Your task to perform on an android device: Go to CNN.com Image 0: 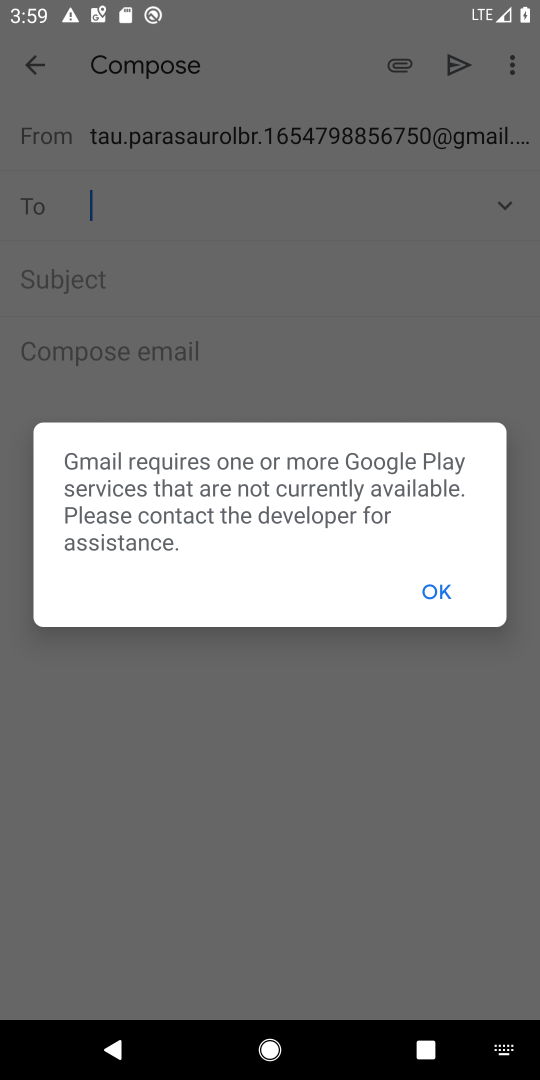
Step 0: press back button
Your task to perform on an android device: Go to CNN.com Image 1: 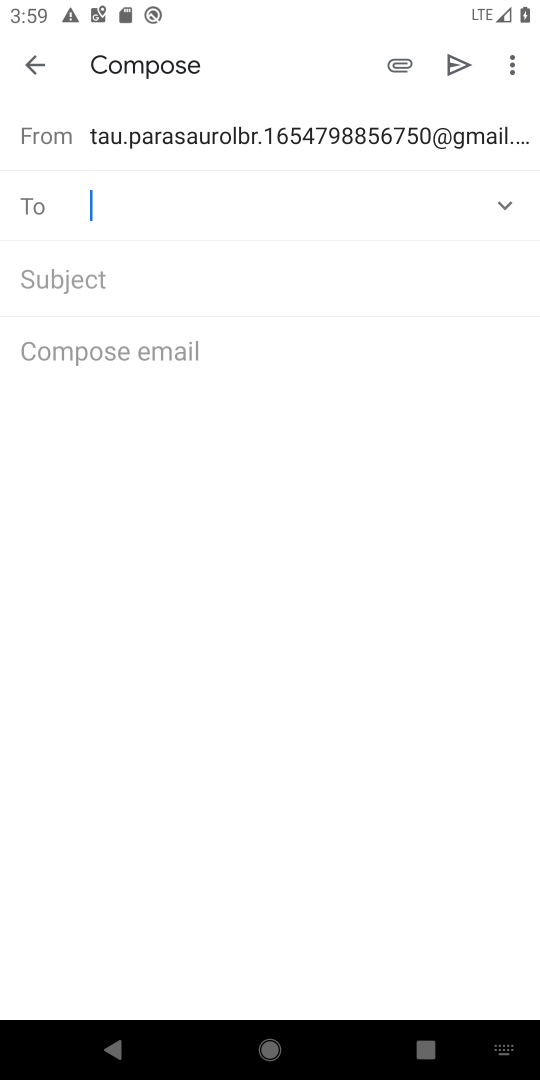
Step 1: press back button
Your task to perform on an android device: Go to CNN.com Image 2: 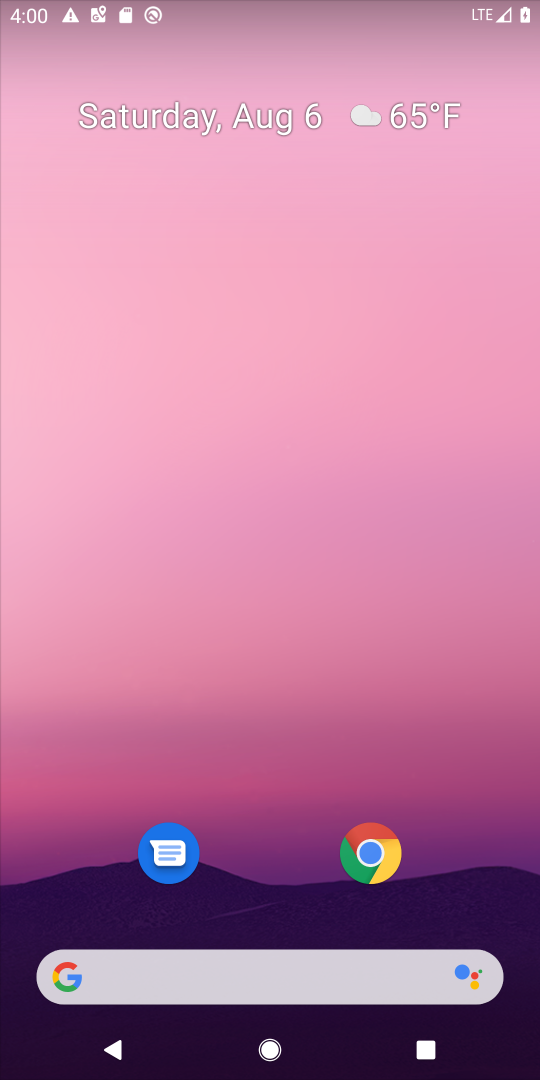
Step 2: click (370, 848)
Your task to perform on an android device: Go to CNN.com Image 3: 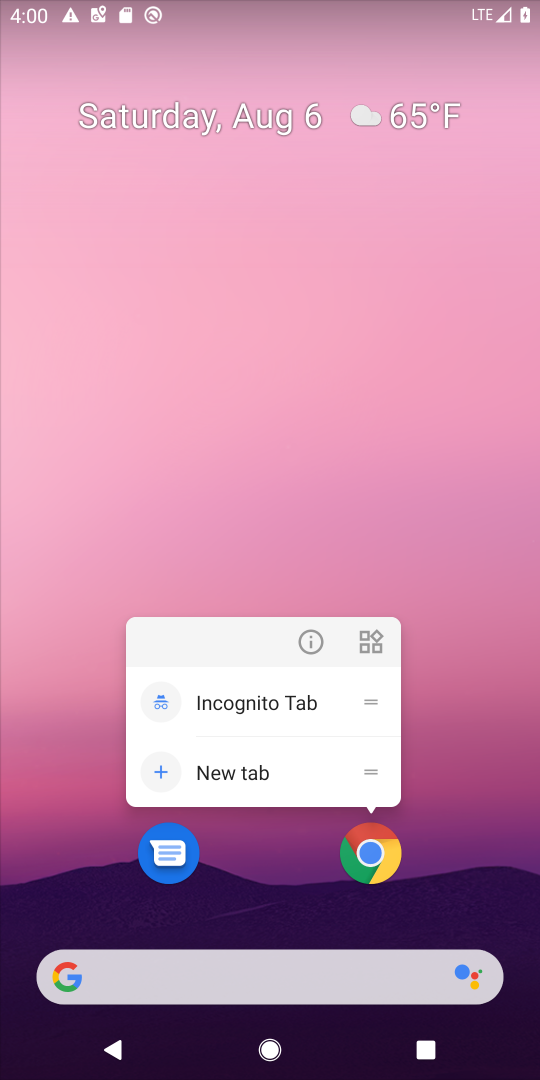
Step 3: click (374, 849)
Your task to perform on an android device: Go to CNN.com Image 4: 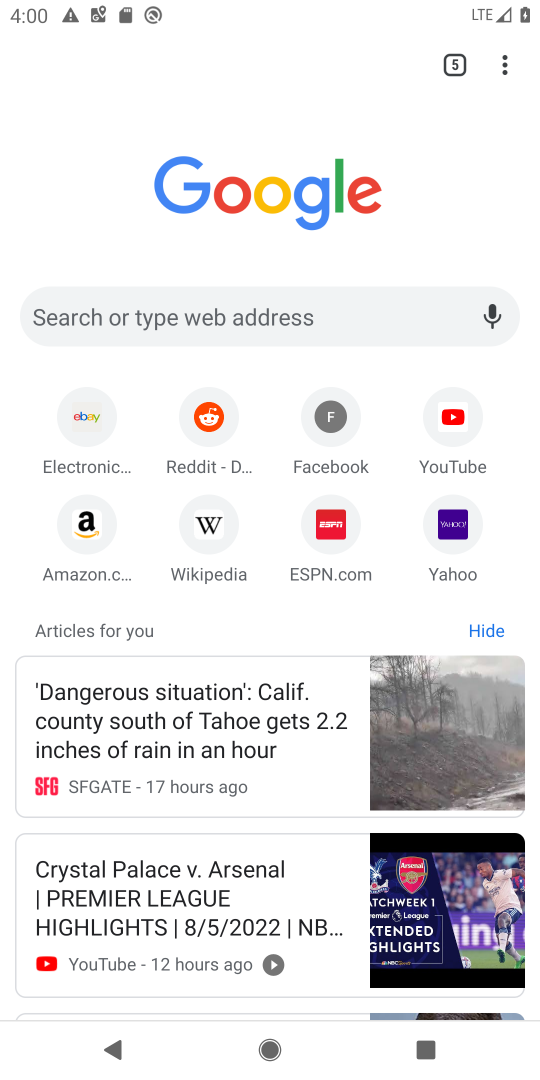
Step 4: click (229, 306)
Your task to perform on an android device: Go to CNN.com Image 5: 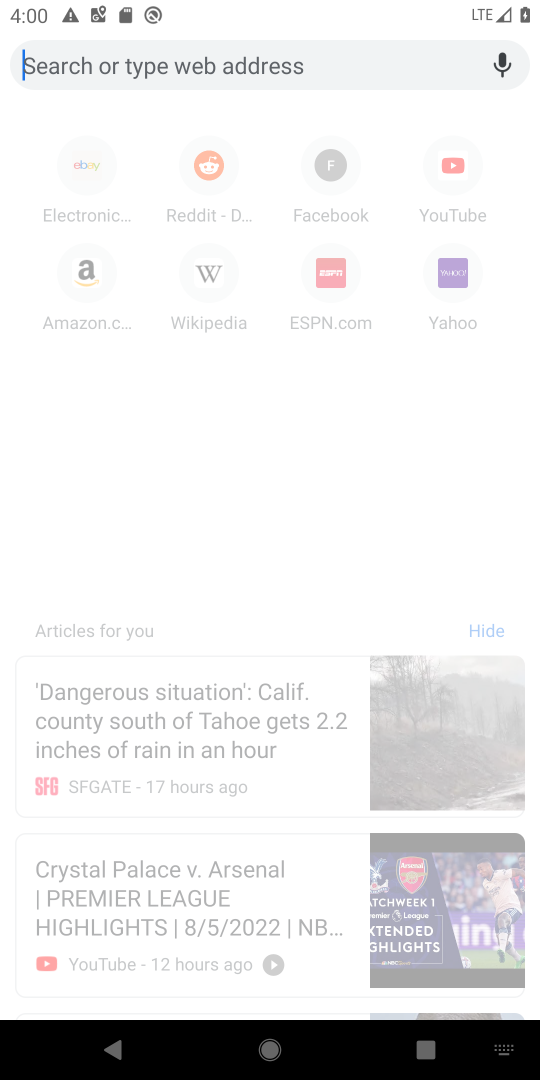
Step 5: type "cnn.com"
Your task to perform on an android device: Go to CNN.com Image 6: 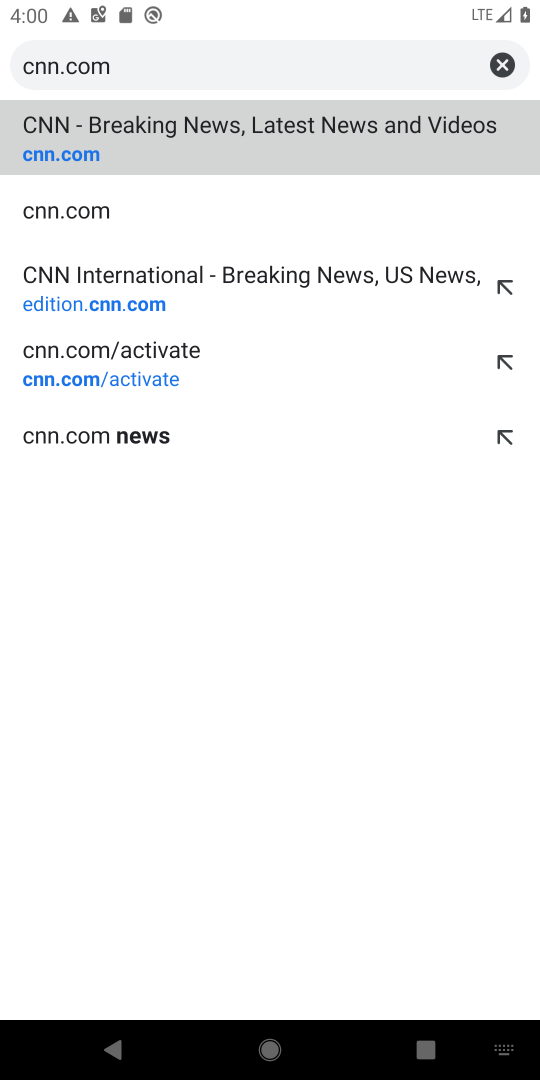
Step 6: click (159, 129)
Your task to perform on an android device: Go to CNN.com Image 7: 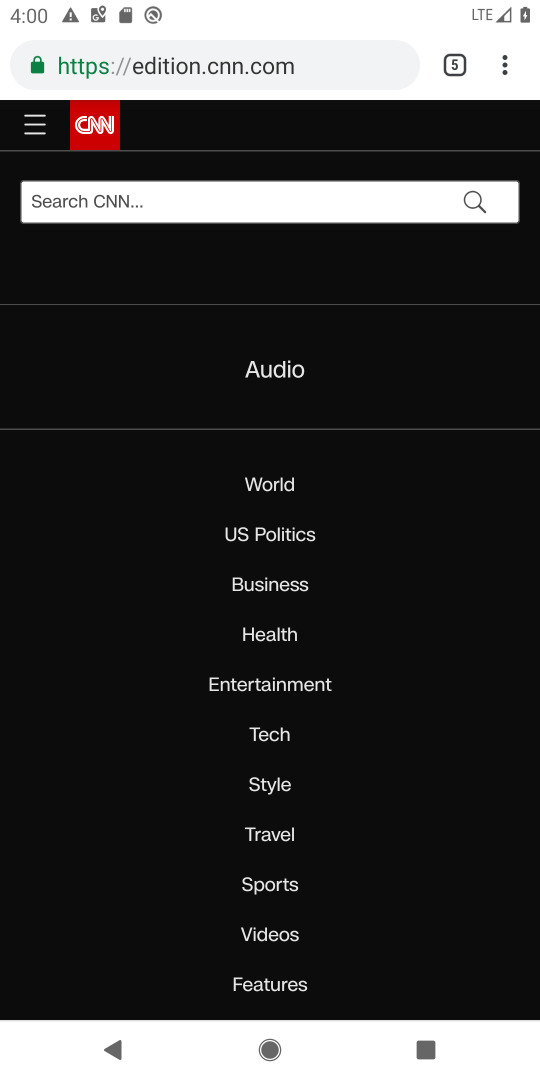
Step 7: task complete